Your task to perform on an android device: open wifi settings Image 0: 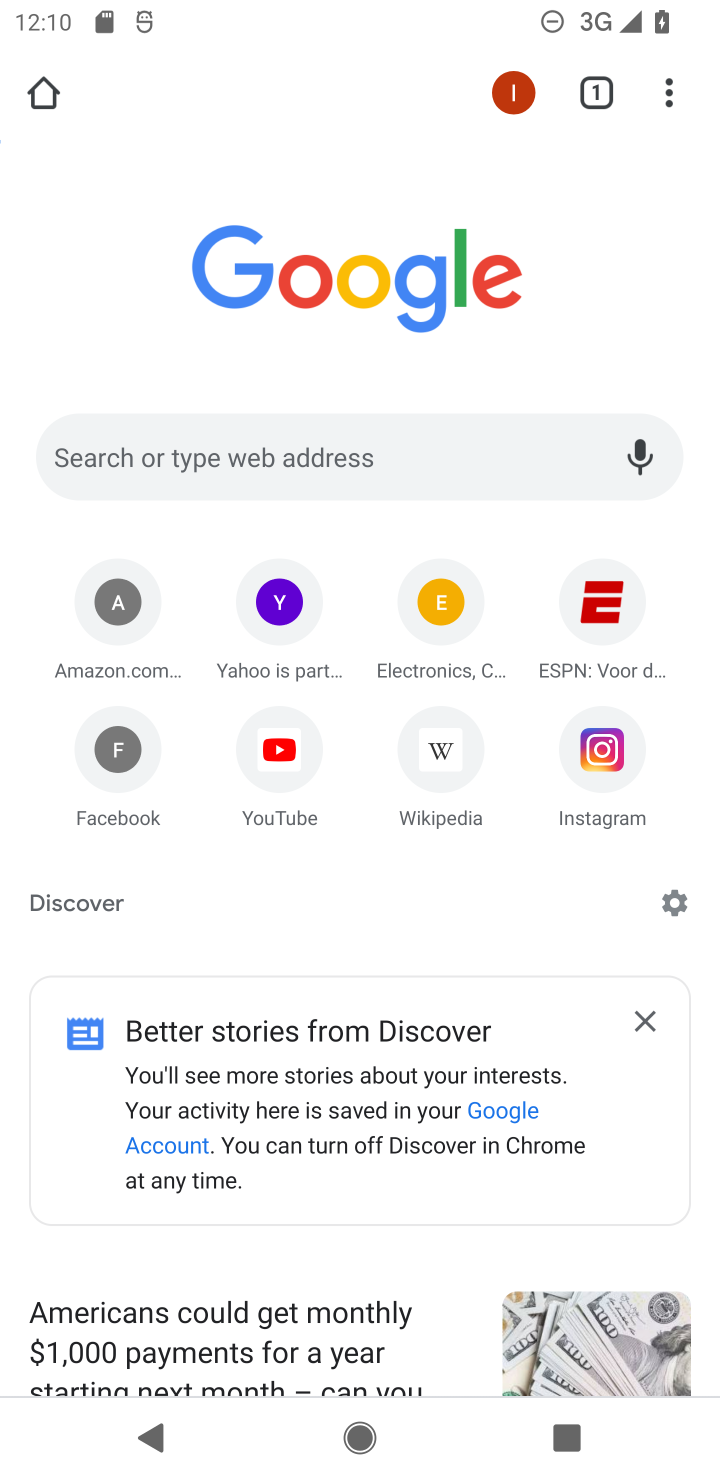
Step 0: press home button
Your task to perform on an android device: open wifi settings Image 1: 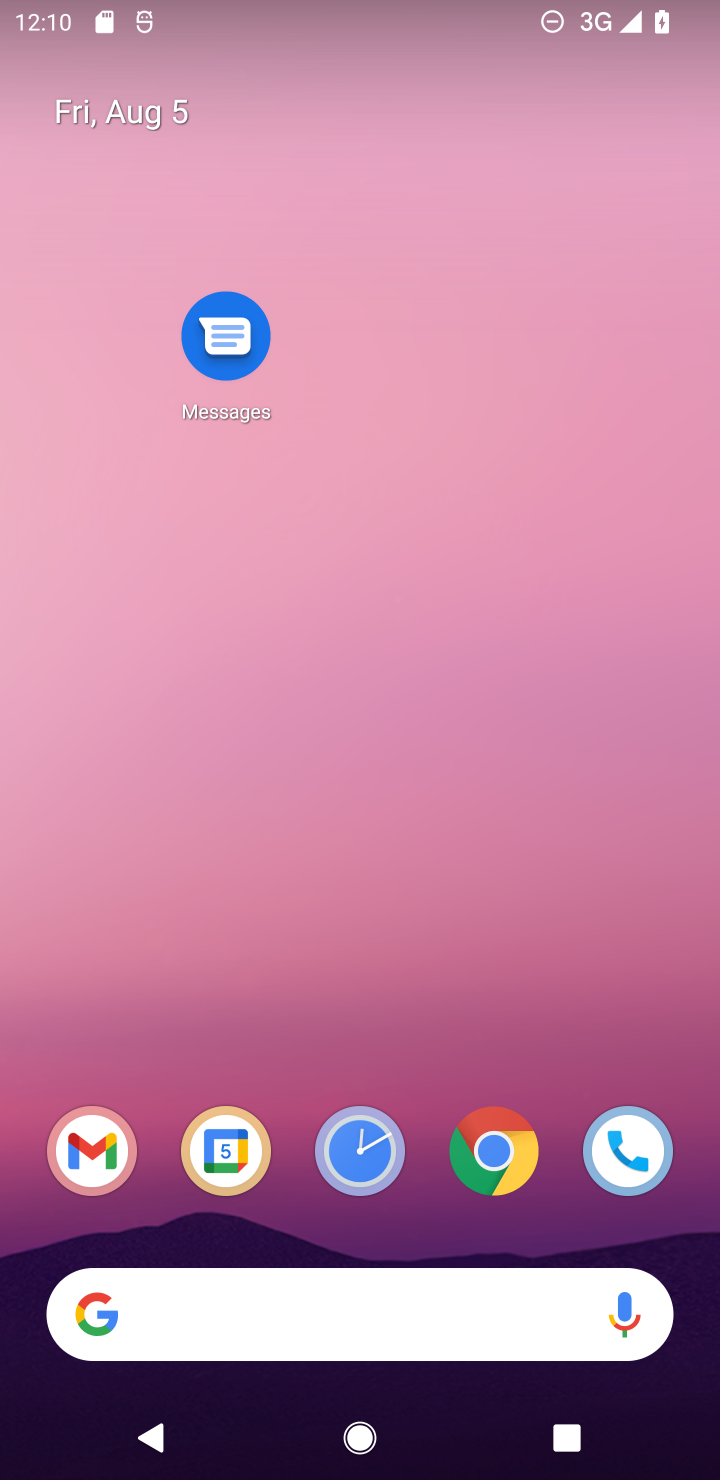
Step 1: drag from (309, 461) to (328, 39)
Your task to perform on an android device: open wifi settings Image 2: 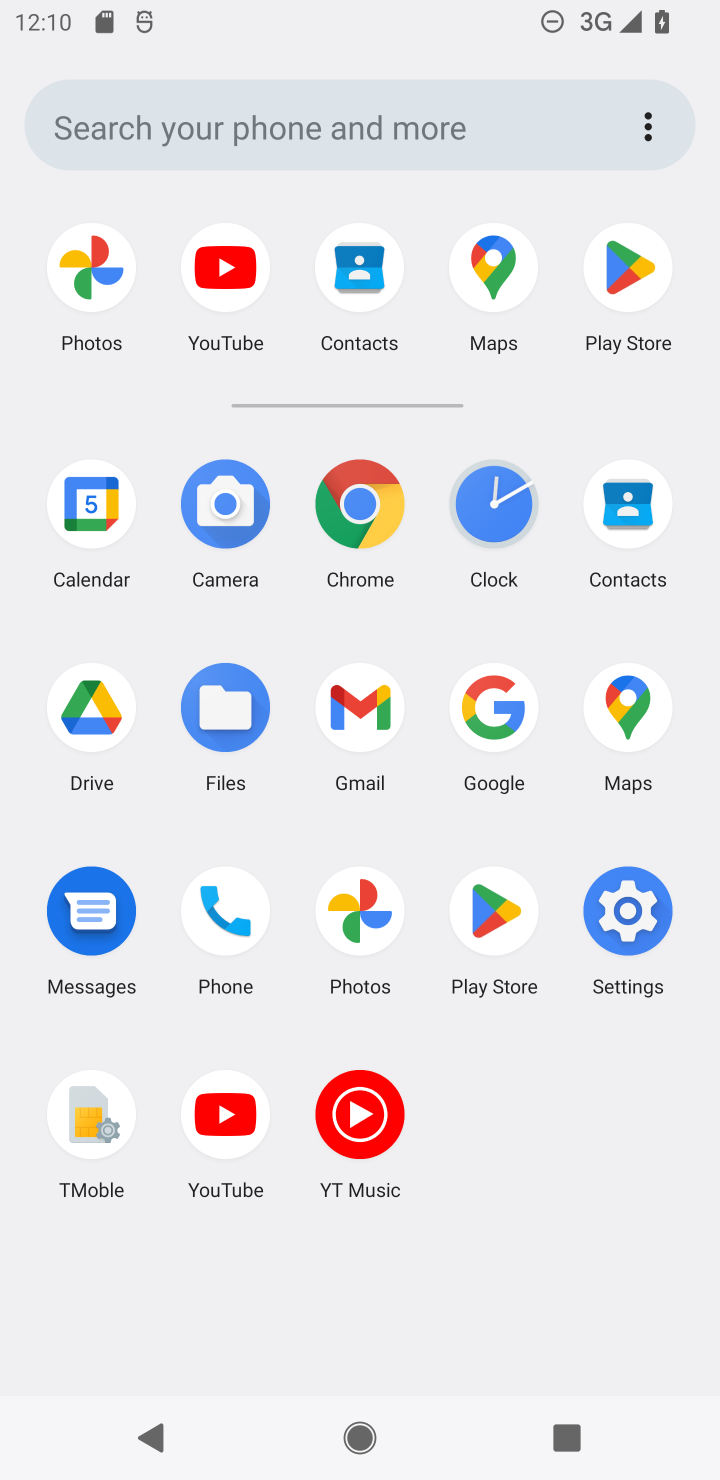
Step 2: click (619, 901)
Your task to perform on an android device: open wifi settings Image 3: 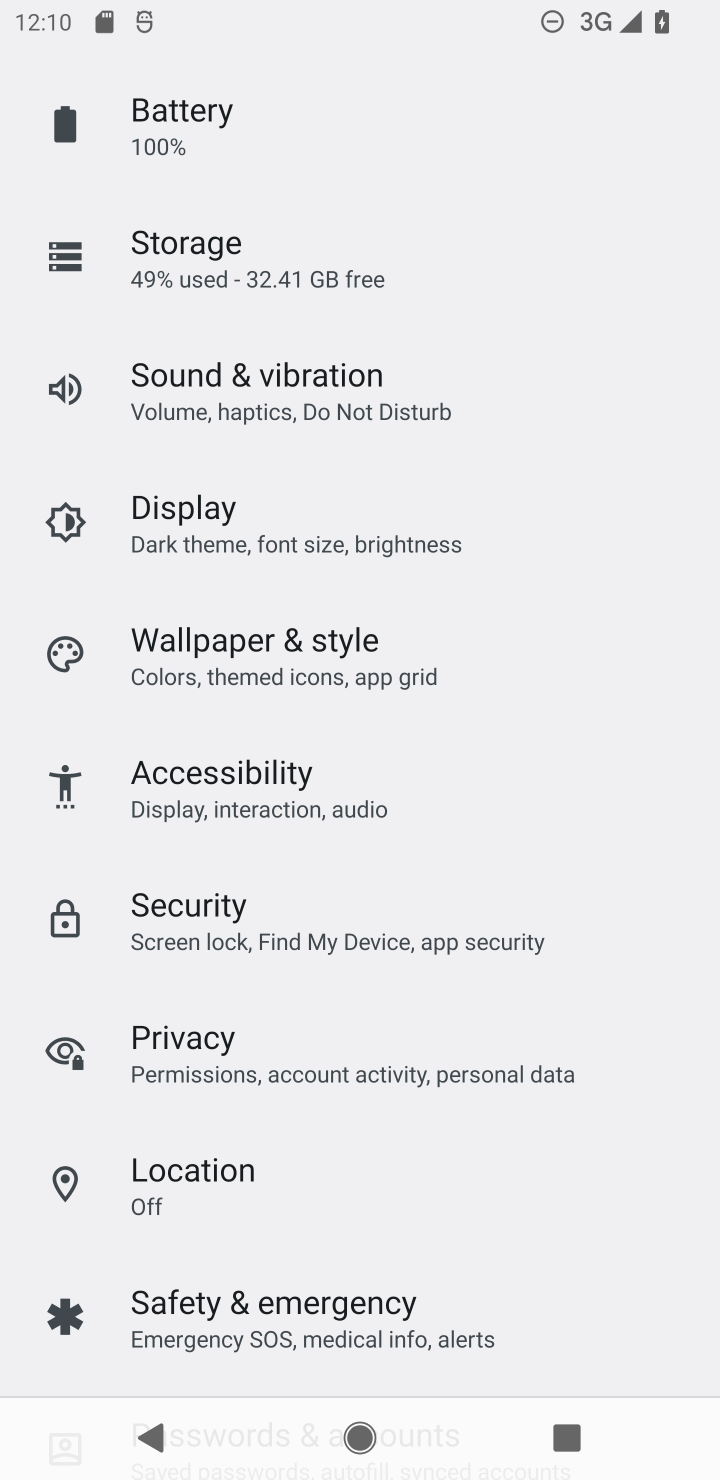
Step 3: drag from (196, 427) to (196, 893)
Your task to perform on an android device: open wifi settings Image 4: 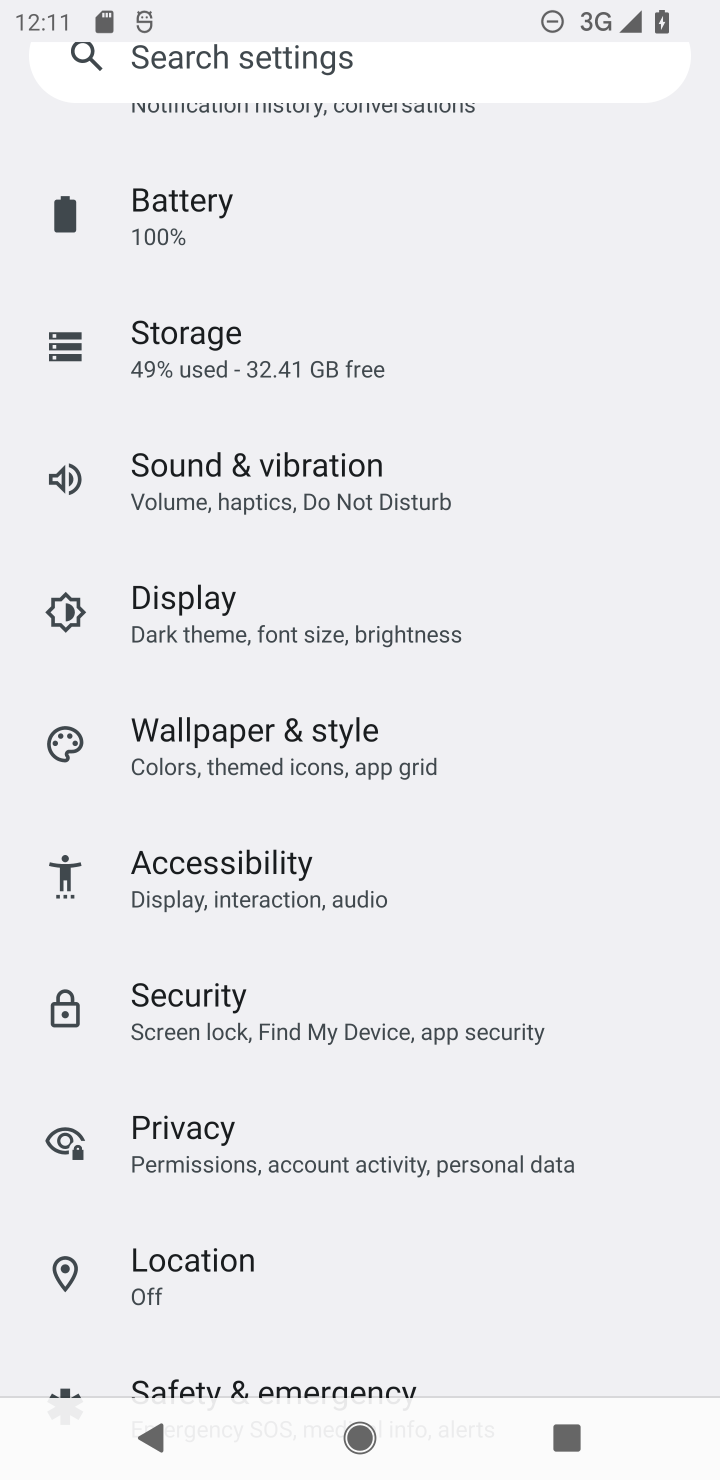
Step 4: drag from (291, 553) to (406, 1135)
Your task to perform on an android device: open wifi settings Image 5: 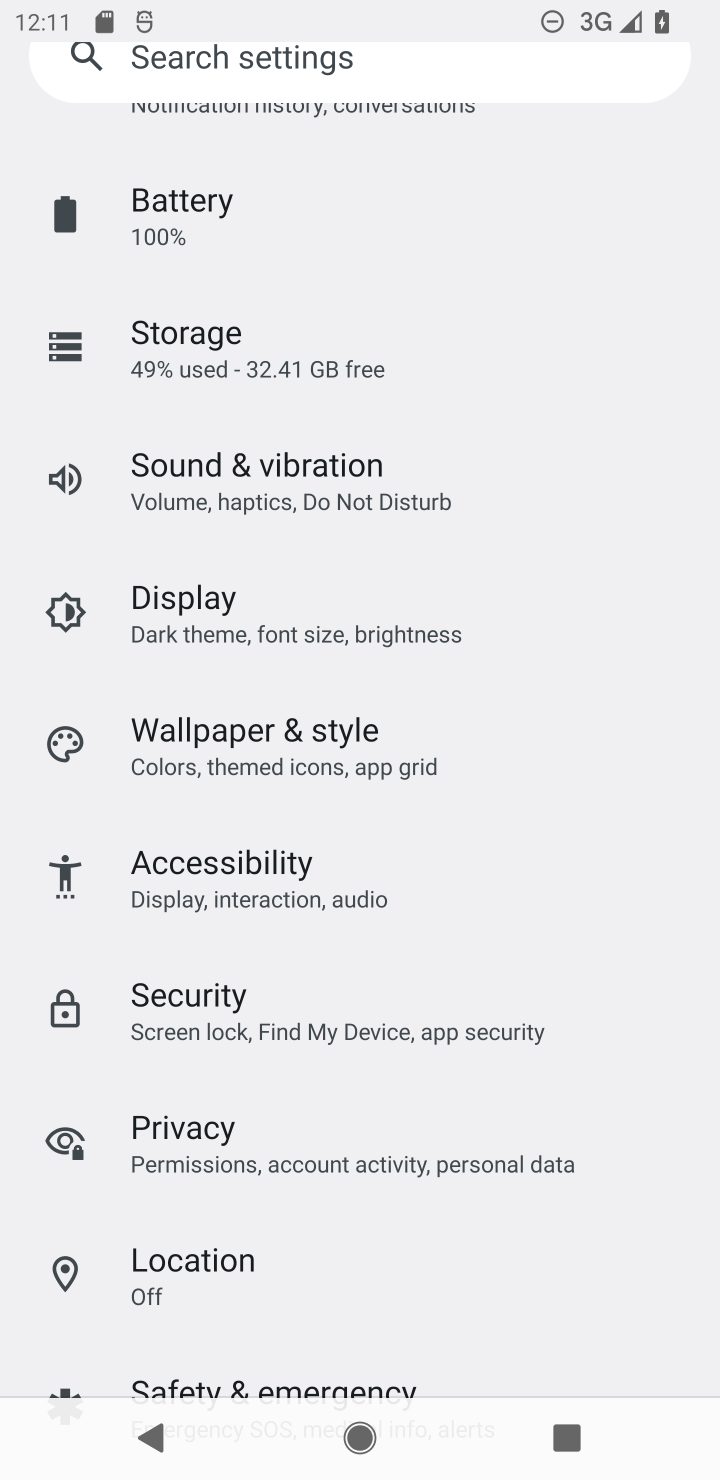
Step 5: drag from (277, 331) to (171, 853)
Your task to perform on an android device: open wifi settings Image 6: 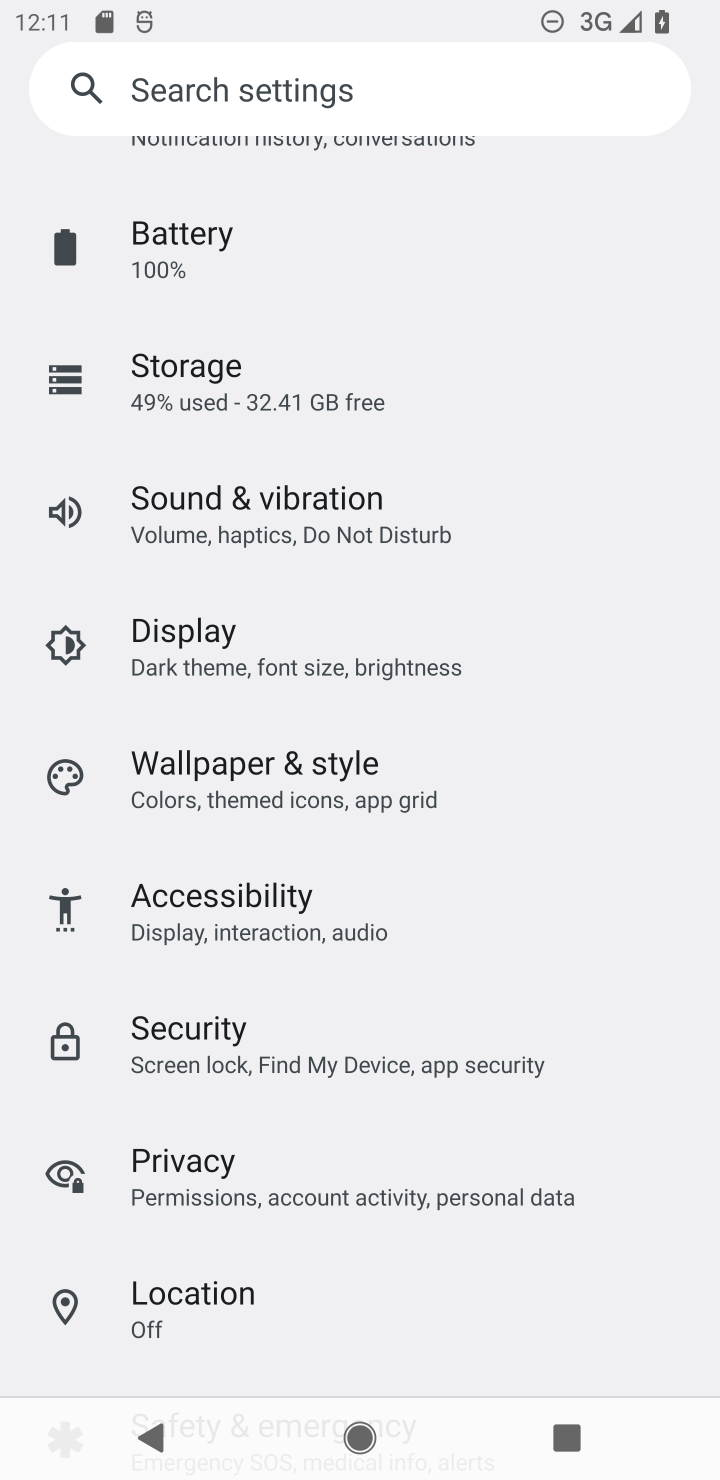
Step 6: click (204, 989)
Your task to perform on an android device: open wifi settings Image 7: 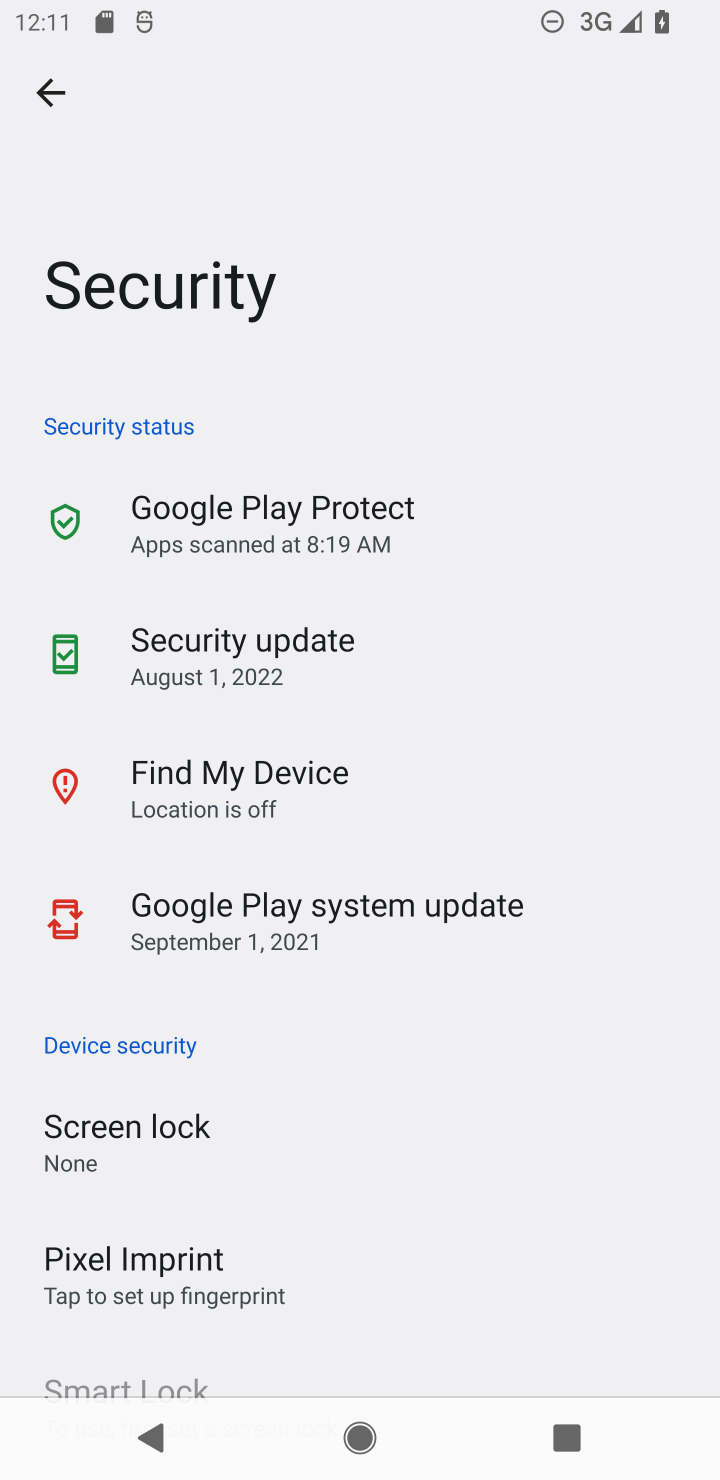
Step 7: click (42, 93)
Your task to perform on an android device: open wifi settings Image 8: 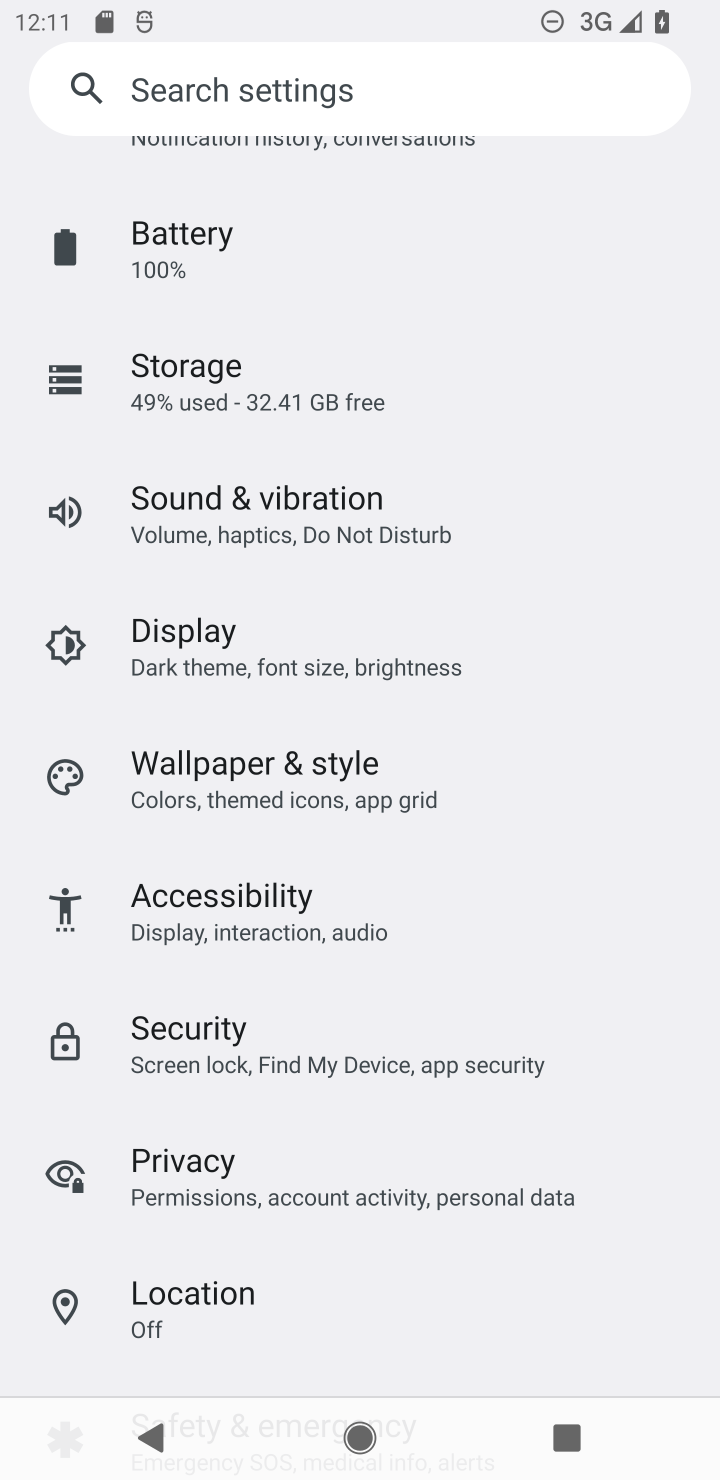
Step 8: click (293, 717)
Your task to perform on an android device: open wifi settings Image 9: 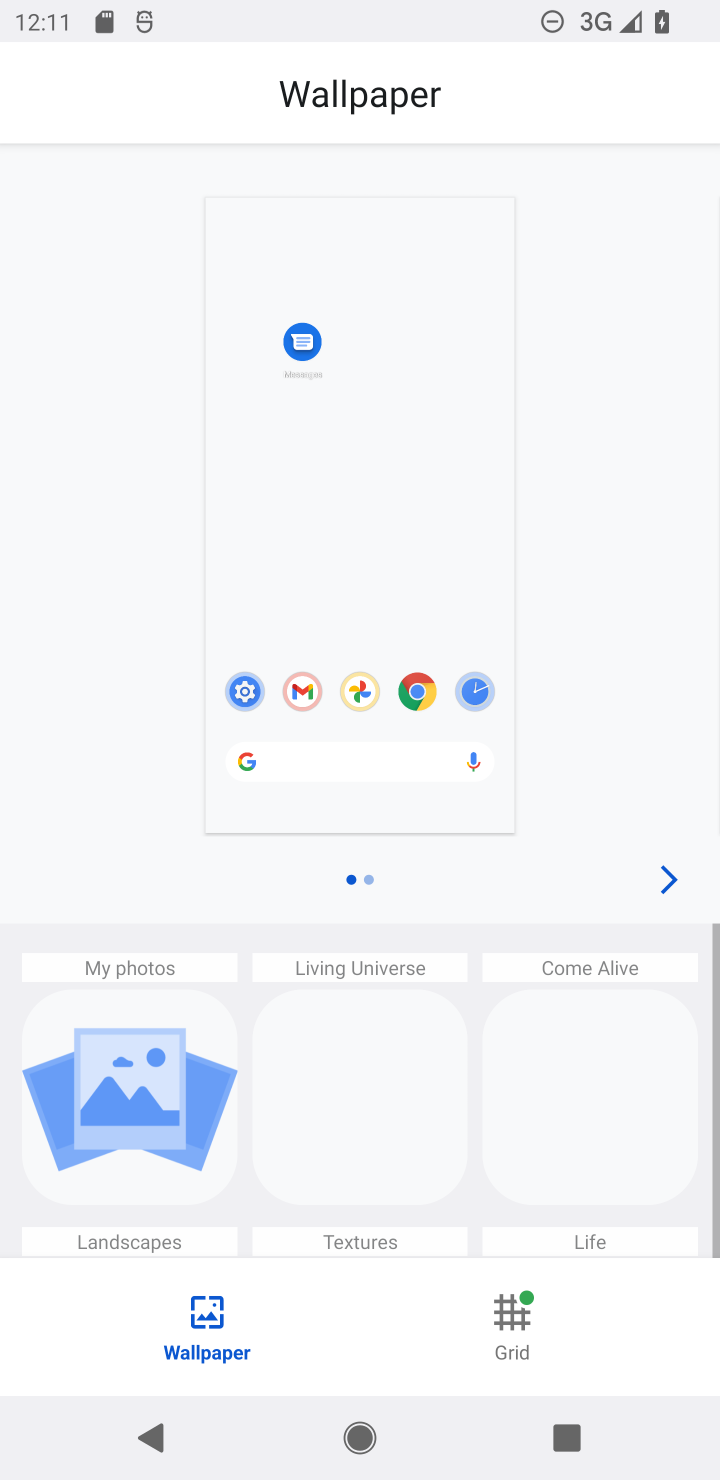
Step 9: press back button
Your task to perform on an android device: open wifi settings Image 10: 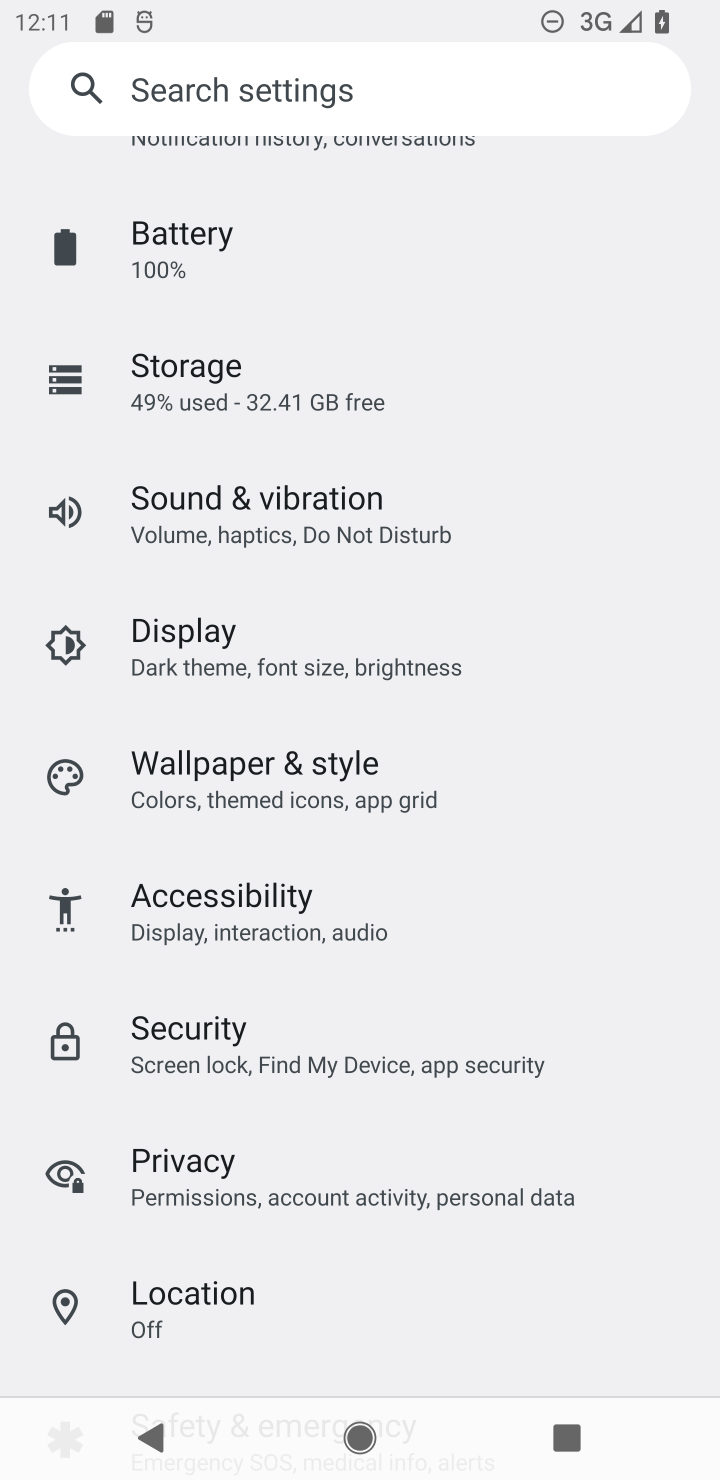
Step 10: click (345, 1300)
Your task to perform on an android device: open wifi settings Image 11: 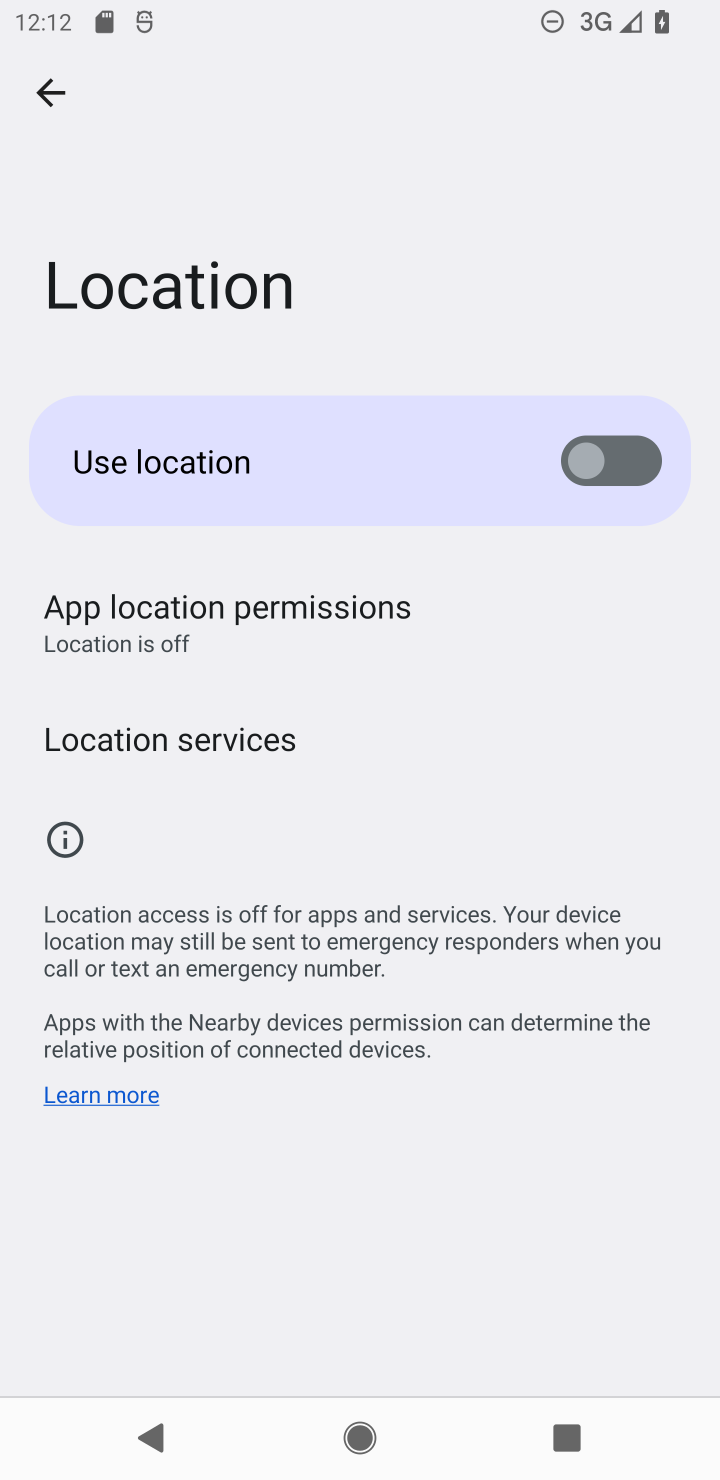
Step 11: press back button
Your task to perform on an android device: open wifi settings Image 12: 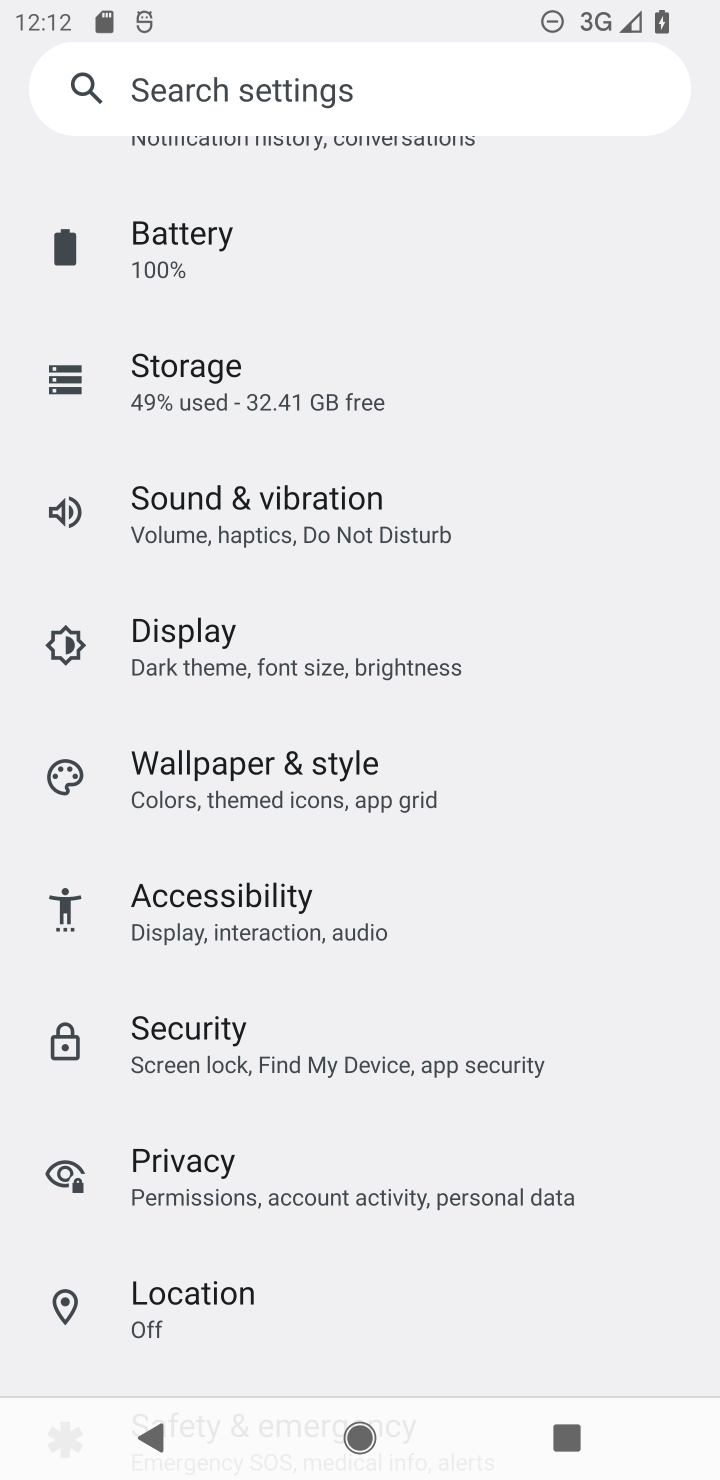
Step 12: drag from (457, 386) to (174, 1207)
Your task to perform on an android device: open wifi settings Image 13: 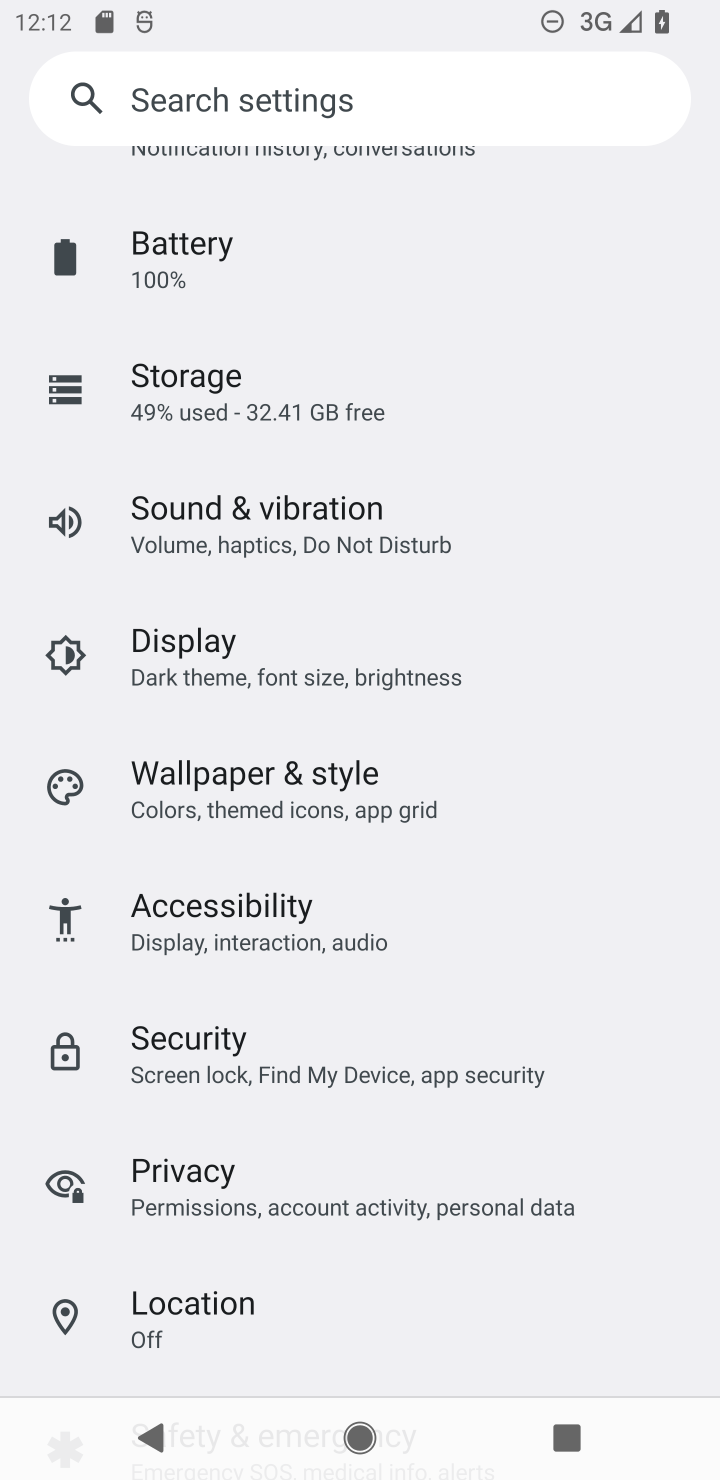
Step 13: drag from (298, 281) to (240, 1184)
Your task to perform on an android device: open wifi settings Image 14: 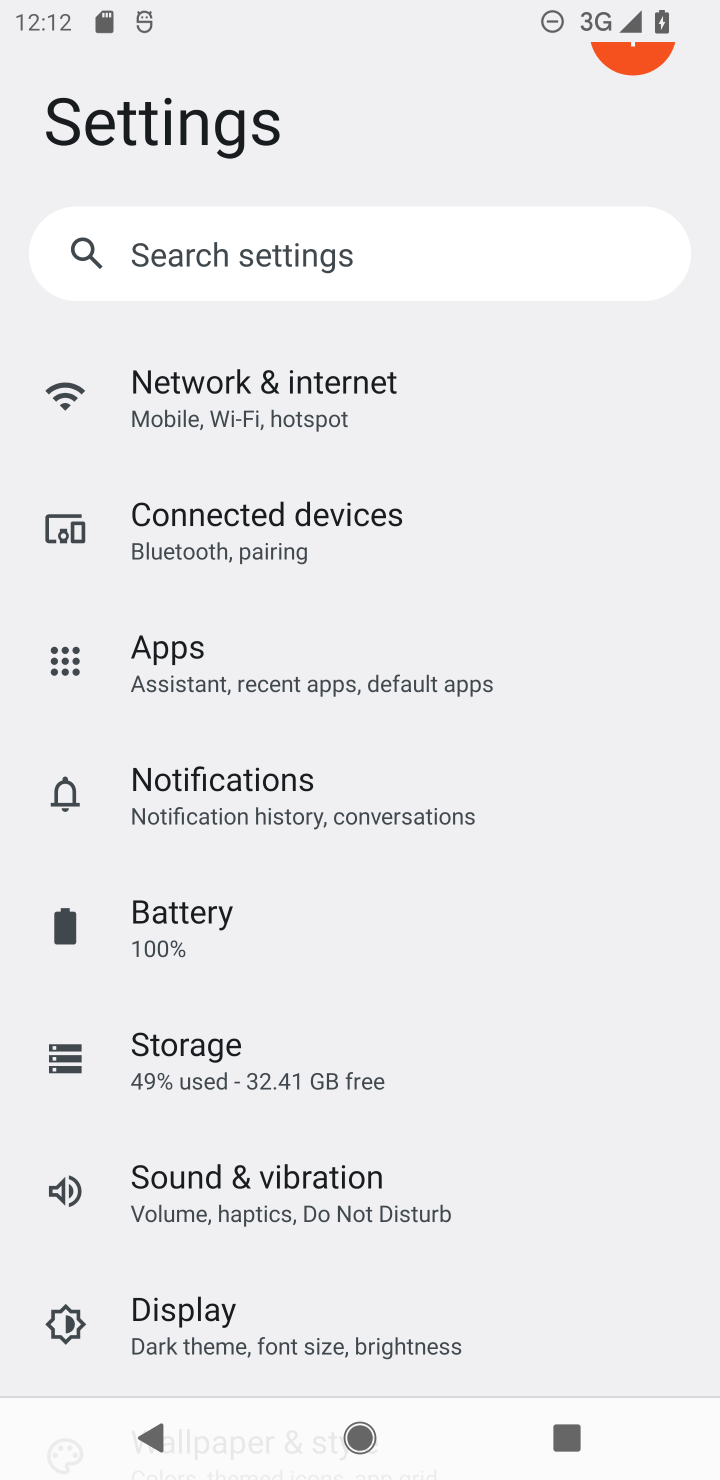
Step 14: click (339, 436)
Your task to perform on an android device: open wifi settings Image 15: 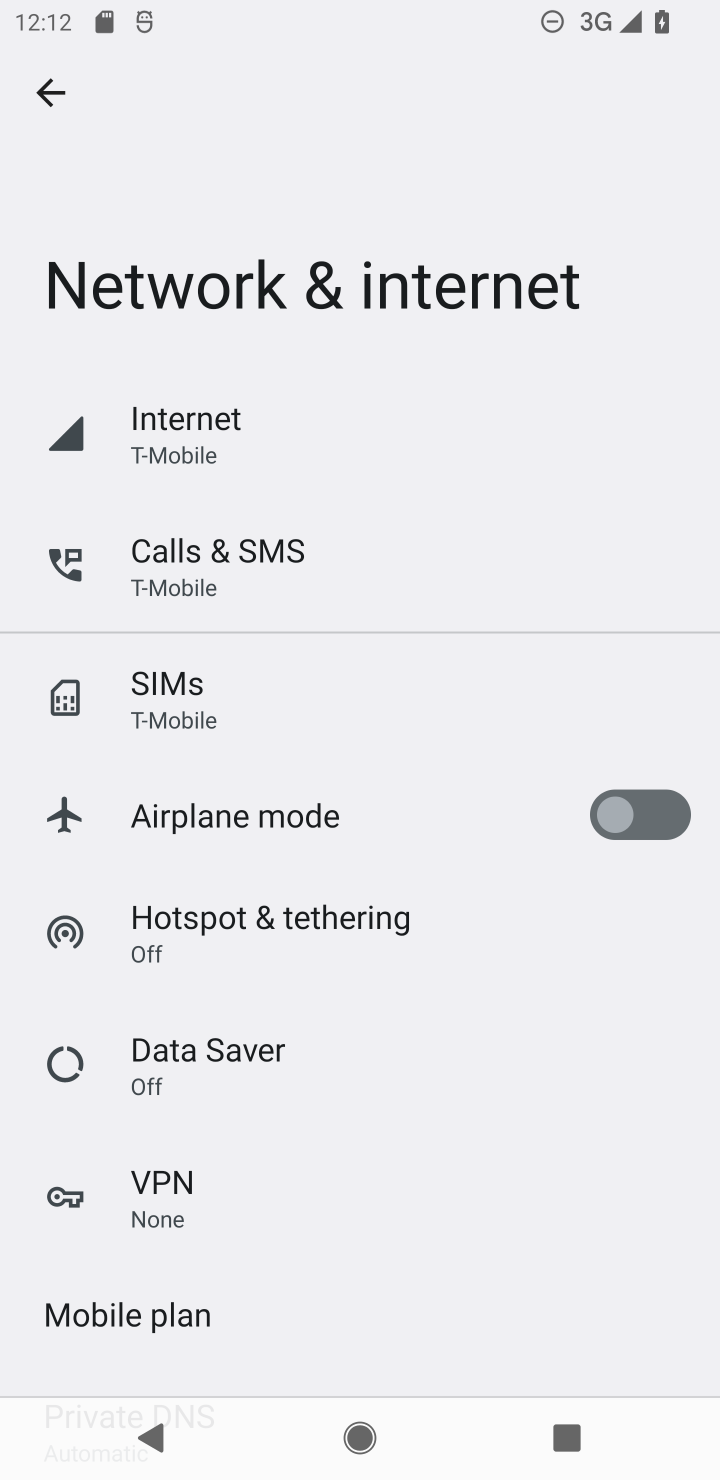
Step 15: click (255, 440)
Your task to perform on an android device: open wifi settings Image 16: 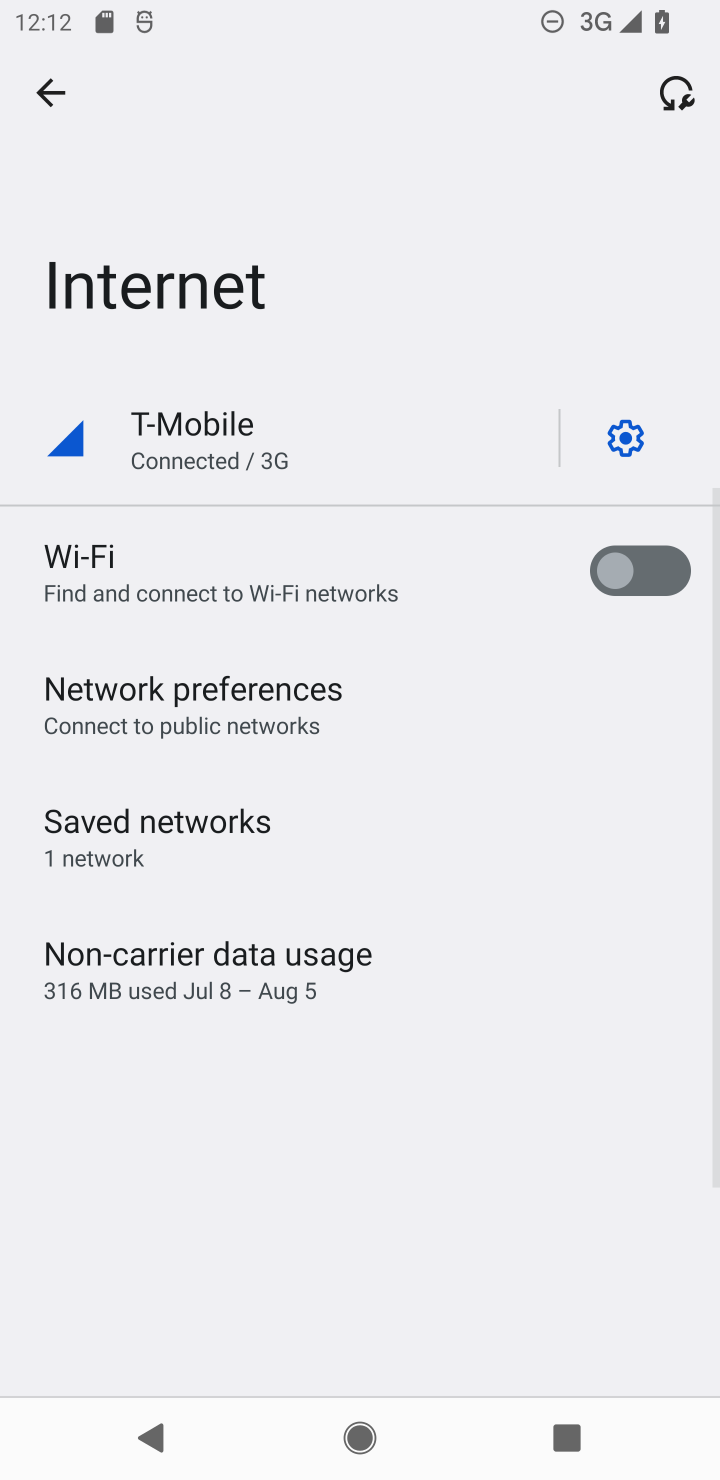
Step 16: click (688, 565)
Your task to perform on an android device: open wifi settings Image 17: 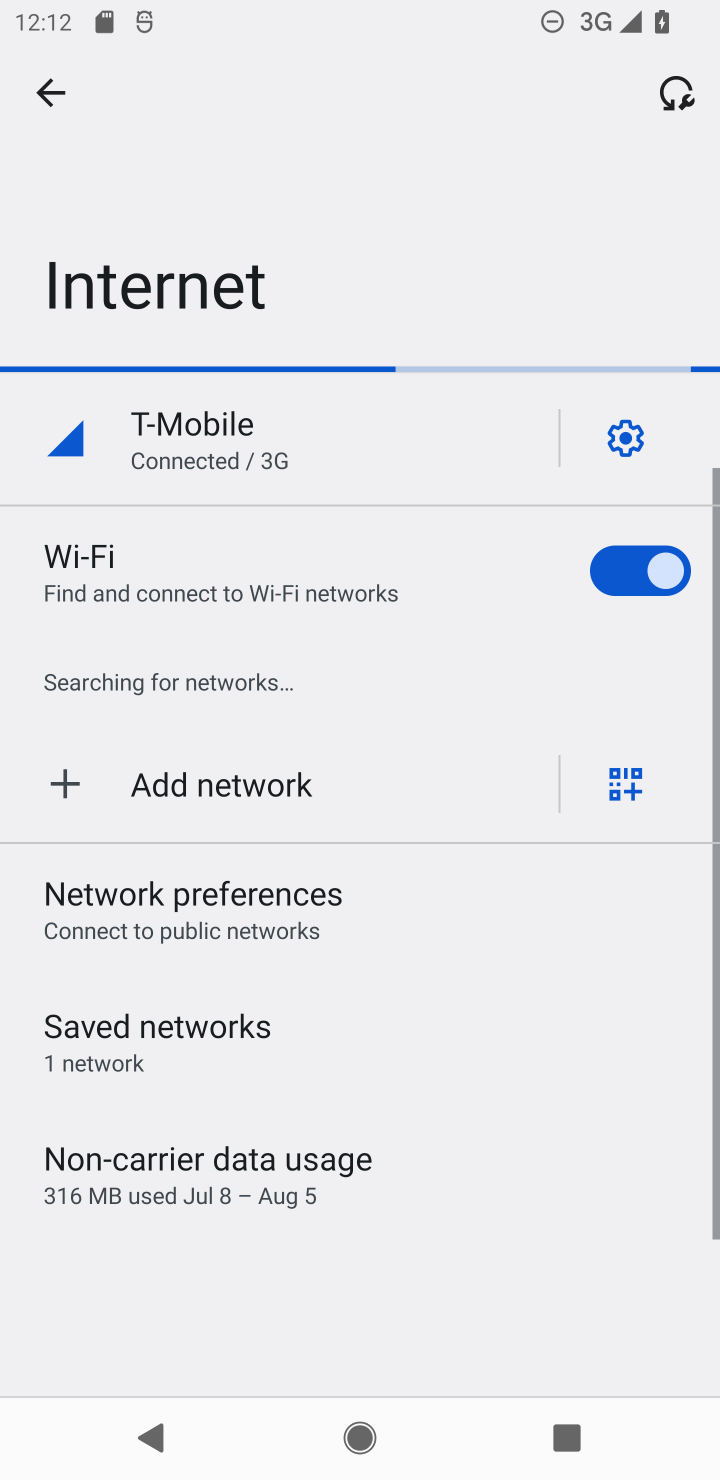
Step 17: task complete